Your task to perform on an android device: Search for "logitech g910" on bestbuy, select the first entry, and add it to the cart. Image 0: 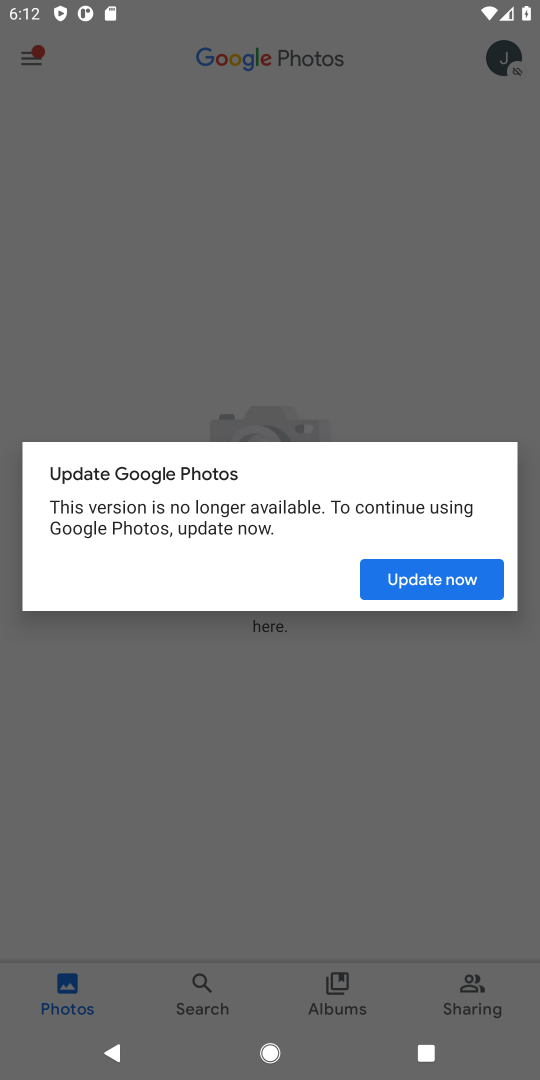
Step 0: press home button
Your task to perform on an android device: Search for "logitech g910" on bestbuy, select the first entry, and add it to the cart. Image 1: 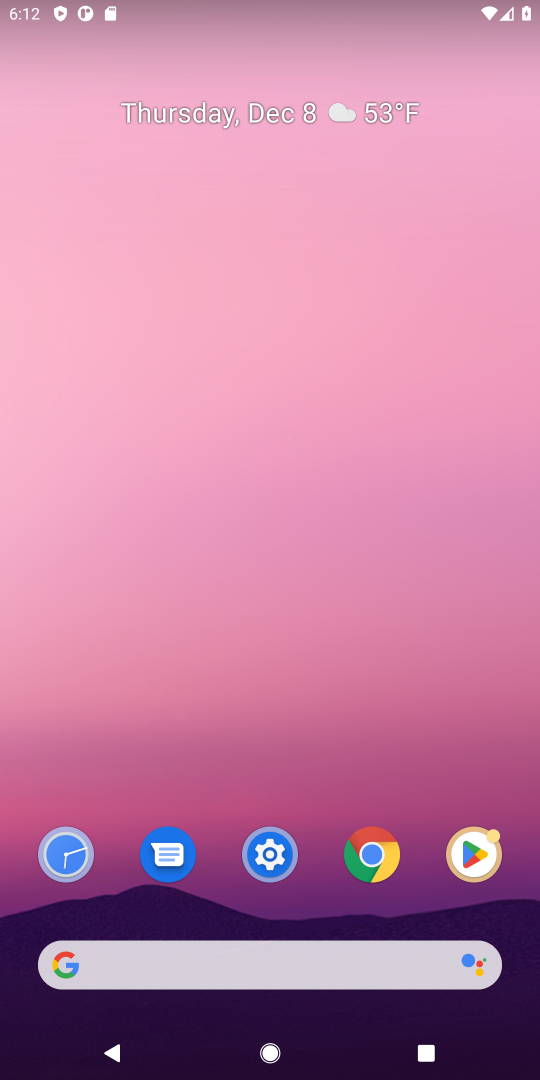
Step 1: click (106, 968)
Your task to perform on an android device: Search for "logitech g910" on bestbuy, select the first entry, and add it to the cart. Image 2: 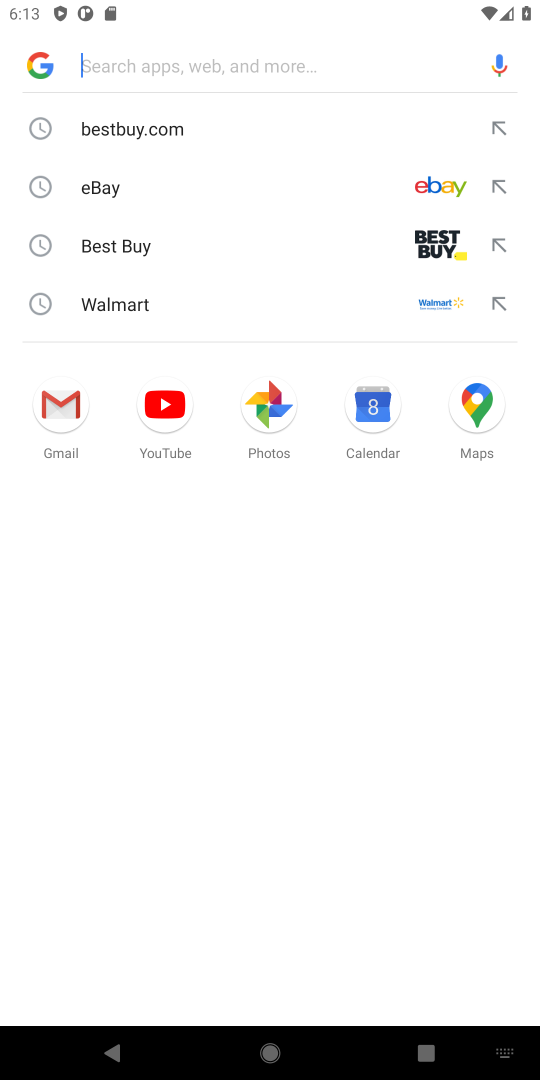
Step 2: type "bestbuy"
Your task to perform on an android device: Search for "logitech g910" on bestbuy, select the first entry, and add it to the cart. Image 3: 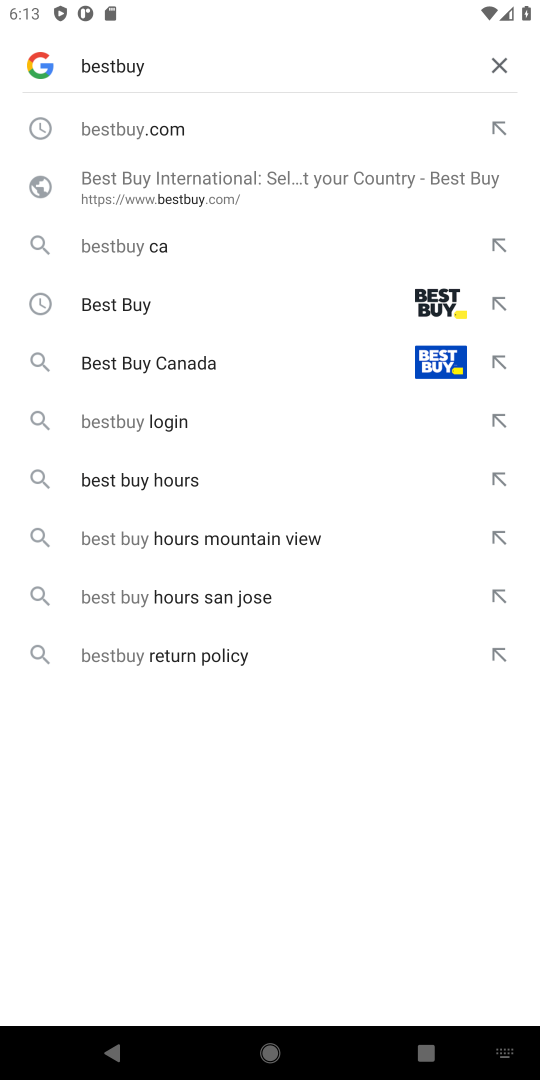
Step 3: press enter
Your task to perform on an android device: Search for "logitech g910" on bestbuy, select the first entry, and add it to the cart. Image 4: 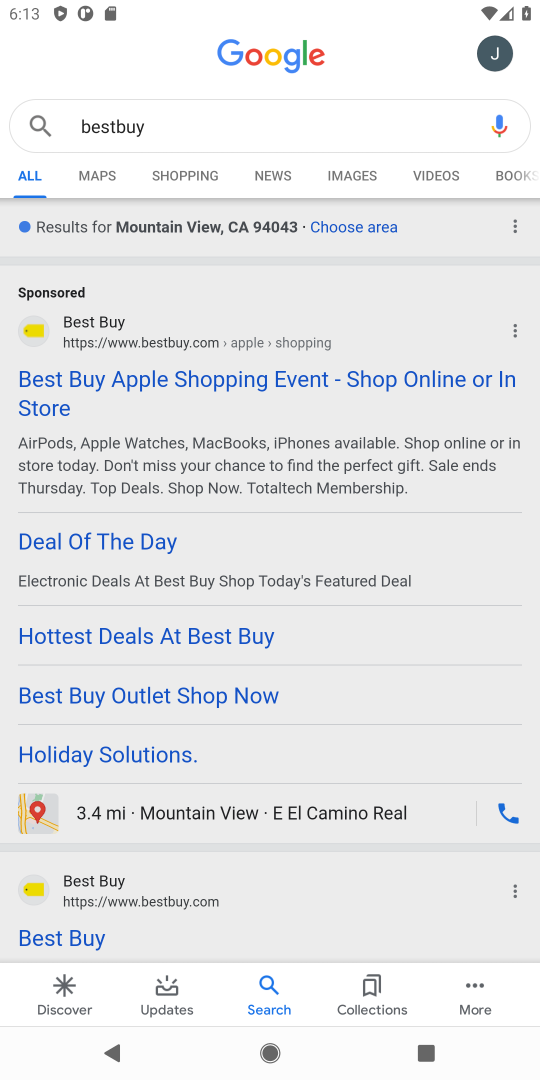
Step 4: click (139, 376)
Your task to perform on an android device: Search for "logitech g910" on bestbuy, select the first entry, and add it to the cart. Image 5: 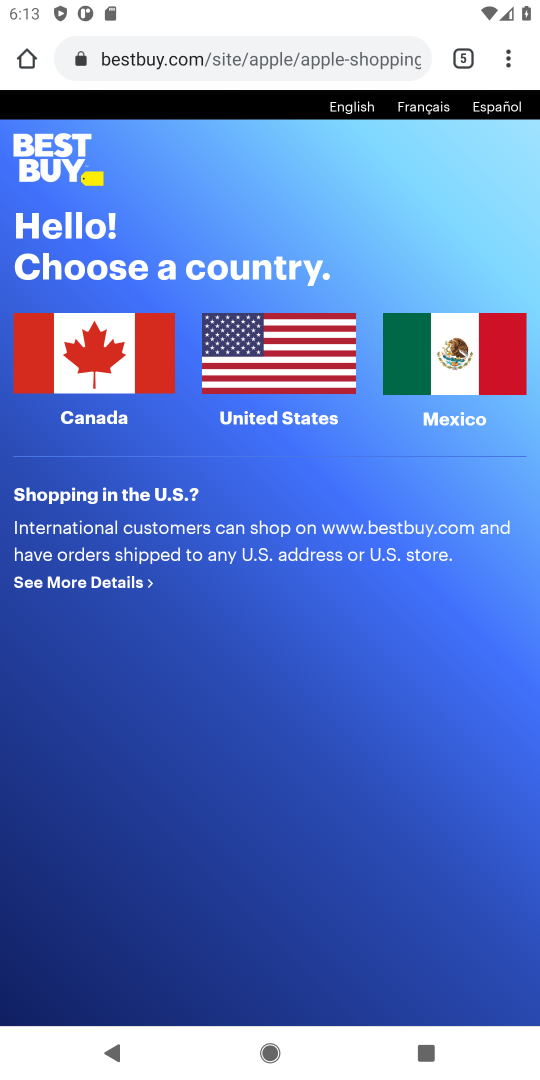
Step 5: click (139, 376)
Your task to perform on an android device: Search for "logitech g910" on bestbuy, select the first entry, and add it to the cart. Image 6: 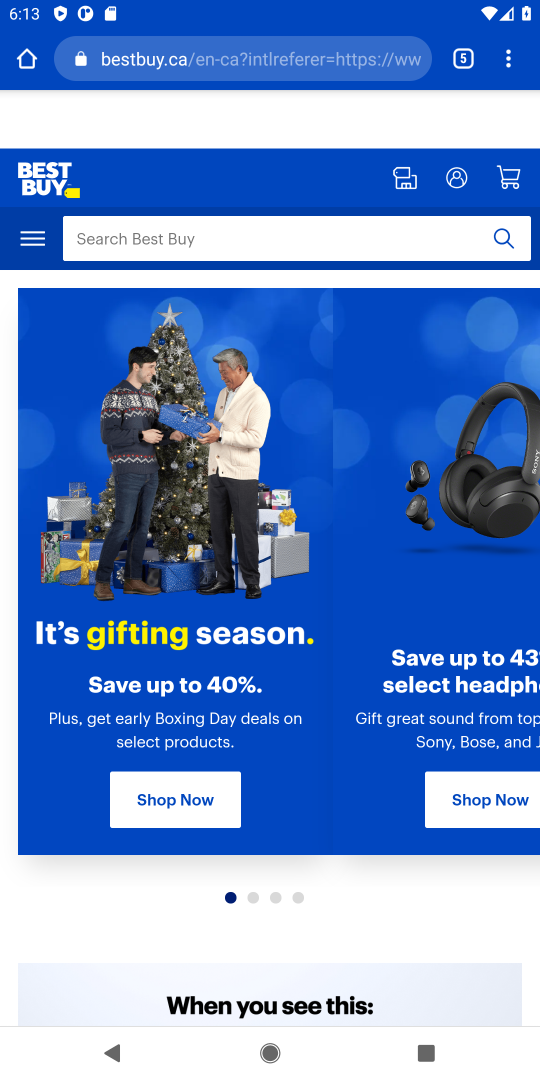
Step 6: click (287, 247)
Your task to perform on an android device: Search for "logitech g910" on bestbuy, select the first entry, and add it to the cart. Image 7: 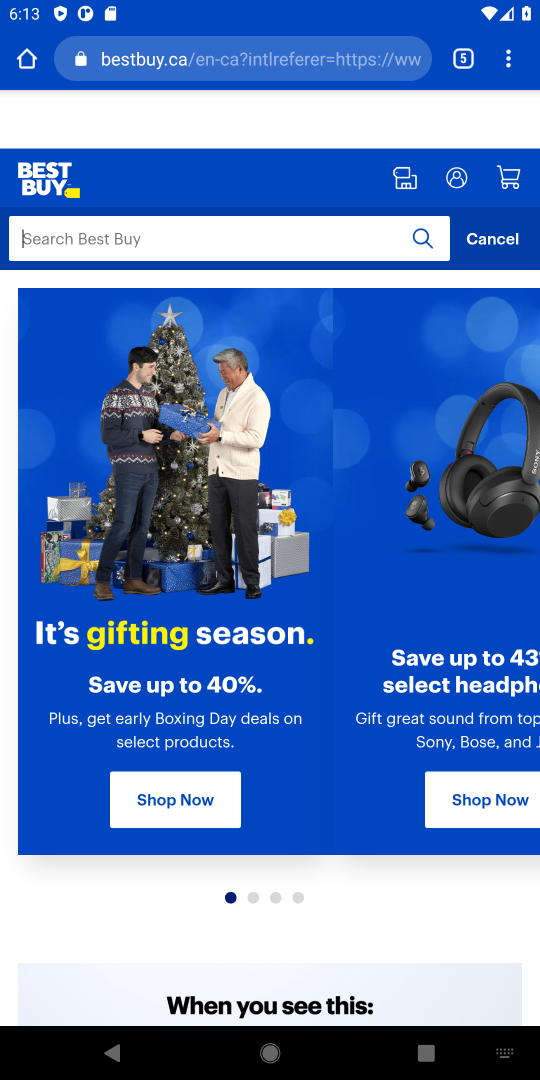
Step 7: press enter
Your task to perform on an android device: Search for "logitech g910" on bestbuy, select the first entry, and add it to the cart. Image 8: 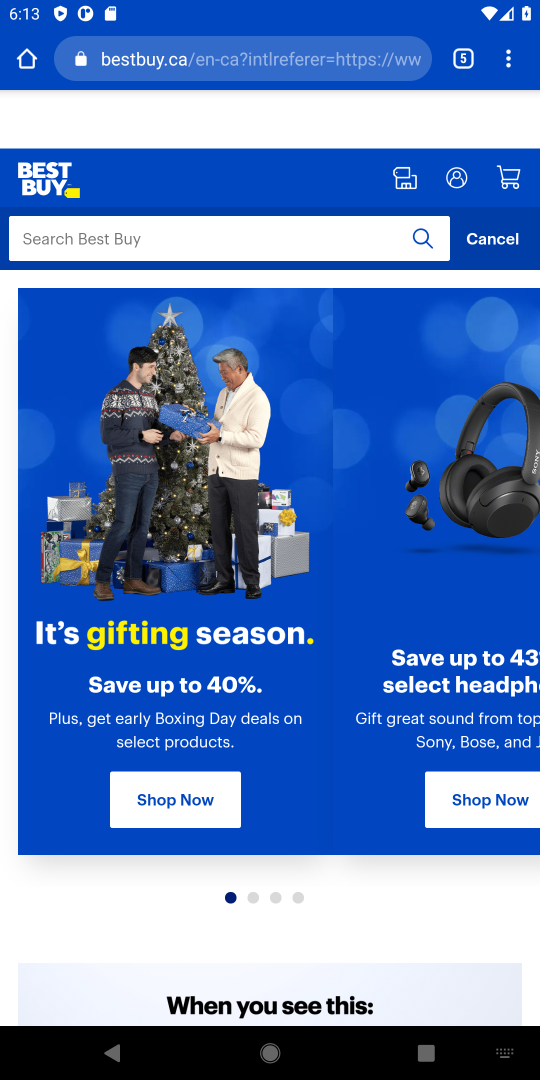
Step 8: type "logitech g910"
Your task to perform on an android device: Search for "logitech g910" on bestbuy, select the first entry, and add it to the cart. Image 9: 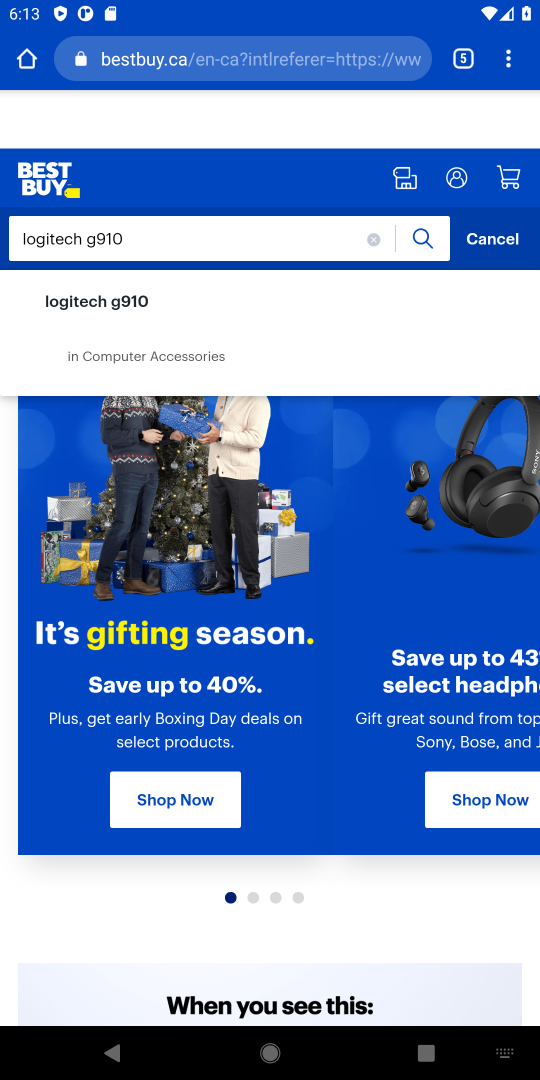
Step 9: click (423, 236)
Your task to perform on an android device: Search for "logitech g910" on bestbuy, select the first entry, and add it to the cart. Image 10: 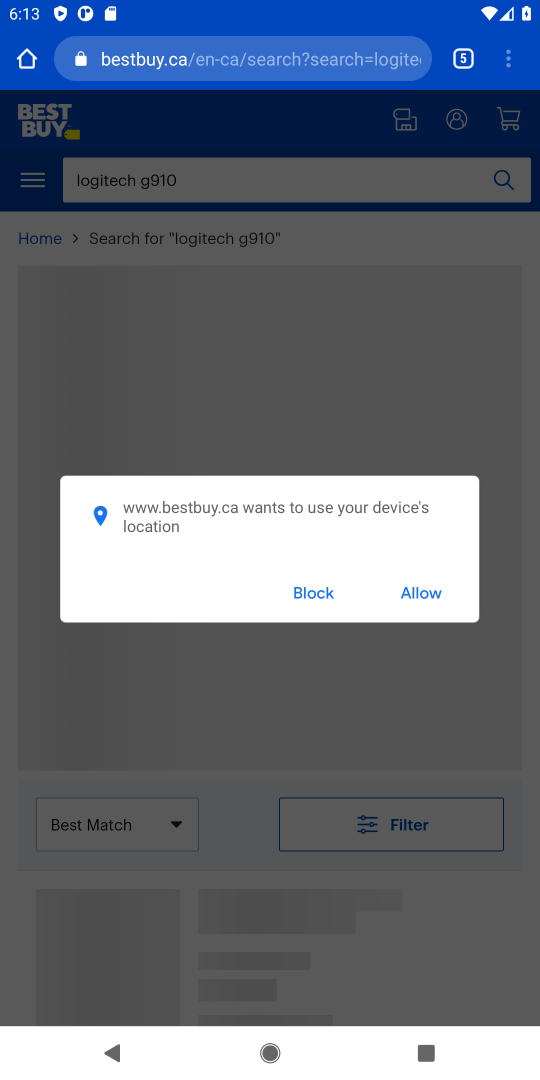
Step 10: click (298, 584)
Your task to perform on an android device: Search for "logitech g910" on bestbuy, select the first entry, and add it to the cart. Image 11: 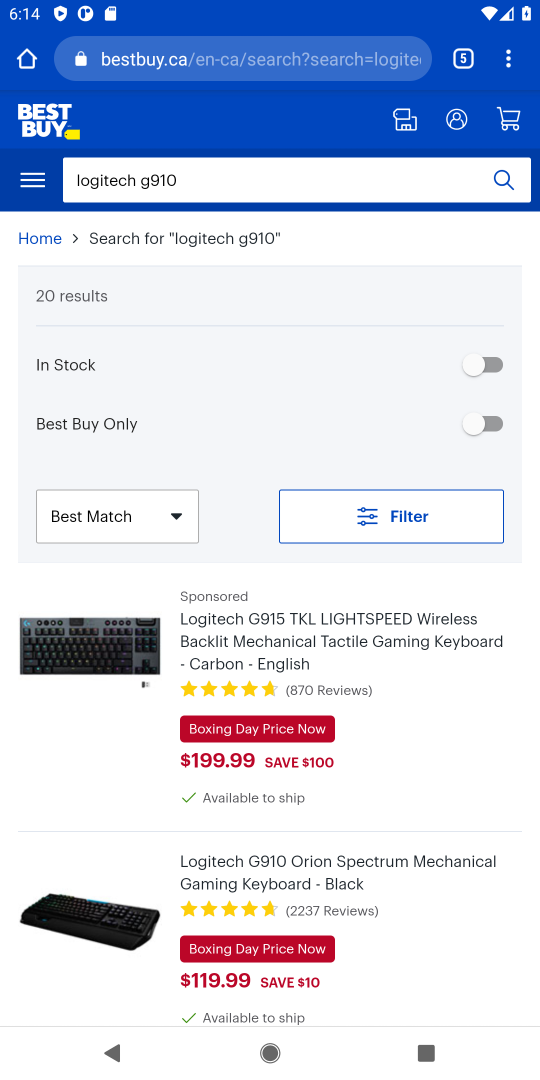
Step 11: click (267, 887)
Your task to perform on an android device: Search for "logitech g910" on bestbuy, select the first entry, and add it to the cart. Image 12: 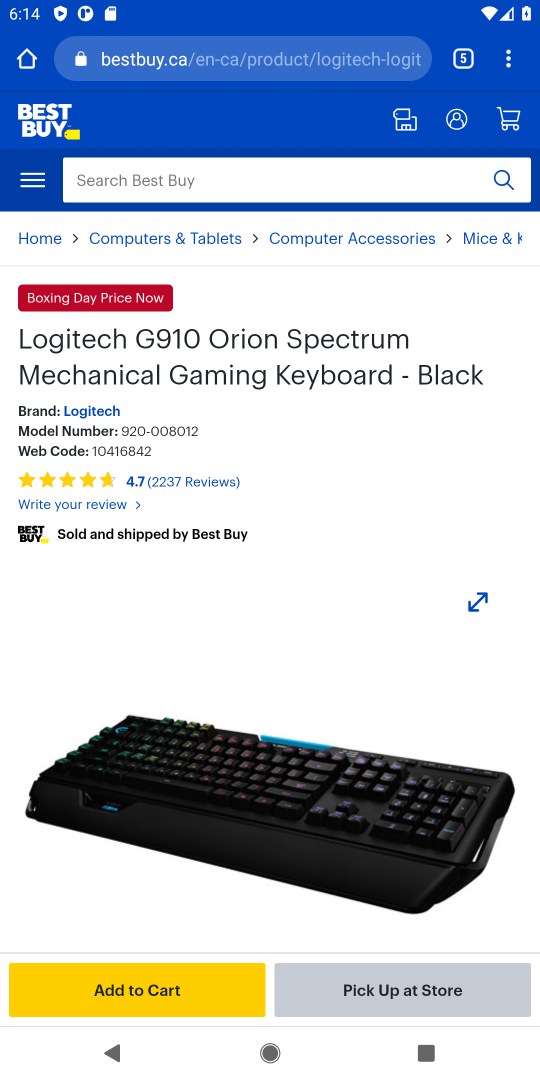
Step 12: click (168, 992)
Your task to perform on an android device: Search for "logitech g910" on bestbuy, select the first entry, and add it to the cart. Image 13: 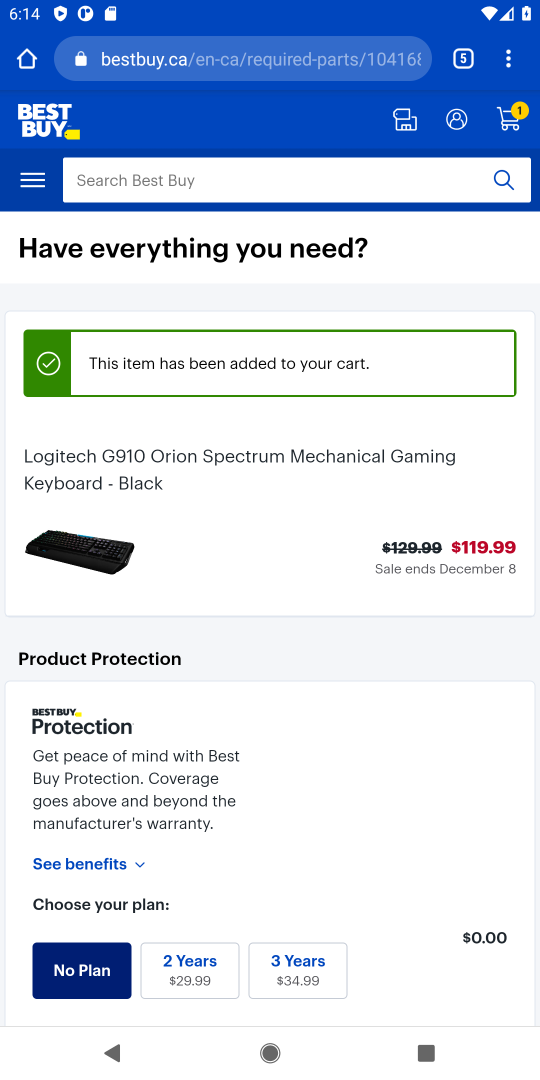
Step 13: task complete